Your task to perform on an android device: Set the phone to "Do not disturb". Image 0: 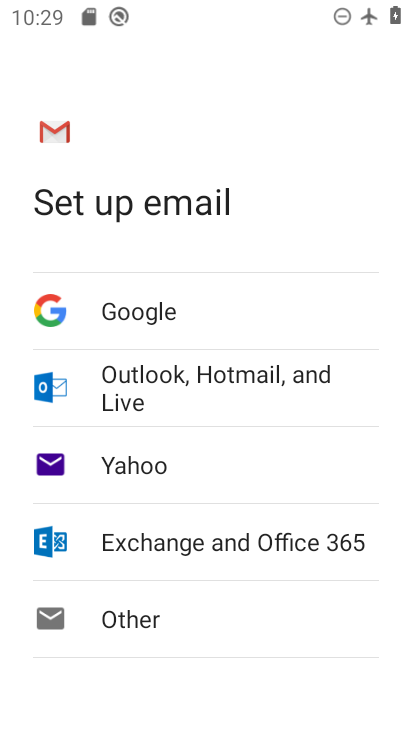
Step 0: press home button
Your task to perform on an android device: Set the phone to "Do not disturb". Image 1: 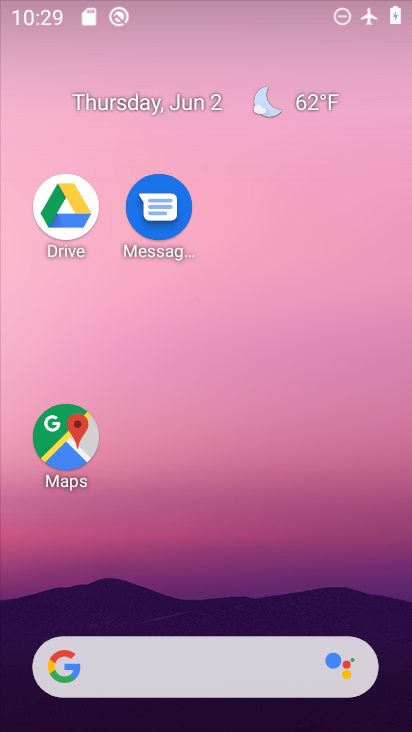
Step 1: task complete